Your task to perform on an android device: open chrome privacy settings Image 0: 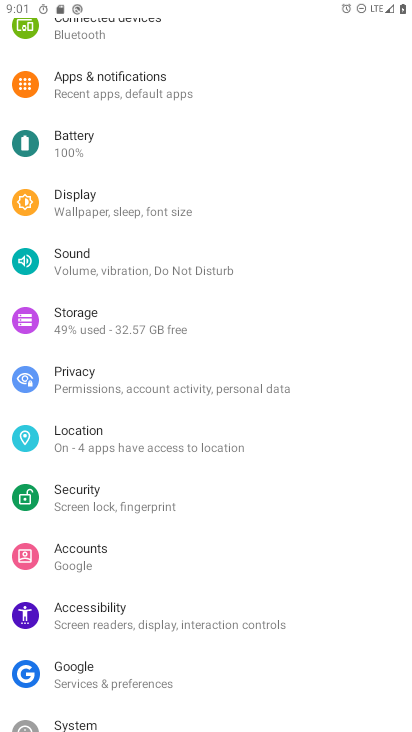
Step 0: press home button
Your task to perform on an android device: open chrome privacy settings Image 1: 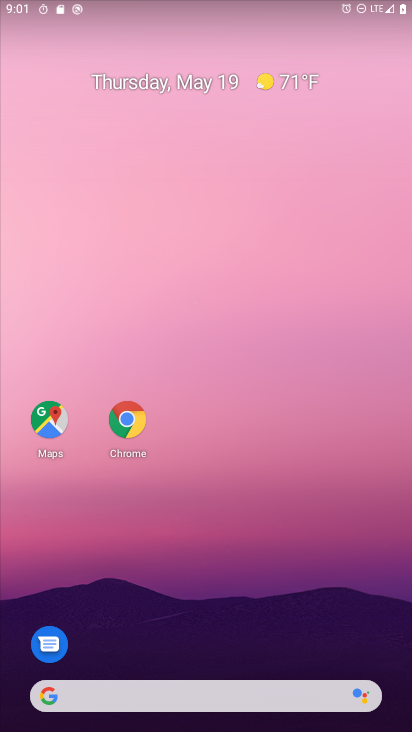
Step 1: click (116, 418)
Your task to perform on an android device: open chrome privacy settings Image 2: 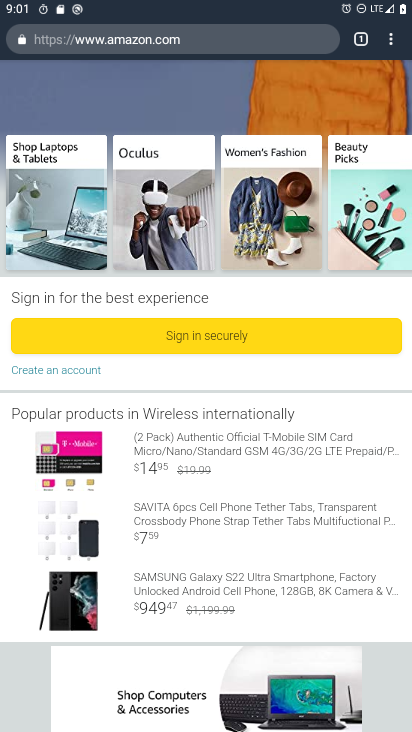
Step 2: click (397, 40)
Your task to perform on an android device: open chrome privacy settings Image 3: 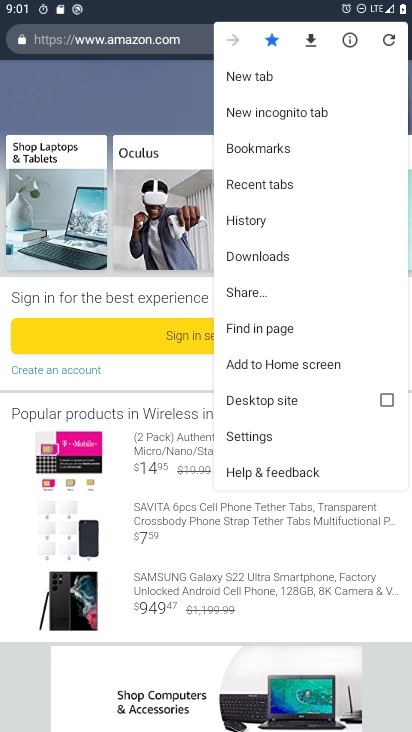
Step 3: click (268, 432)
Your task to perform on an android device: open chrome privacy settings Image 4: 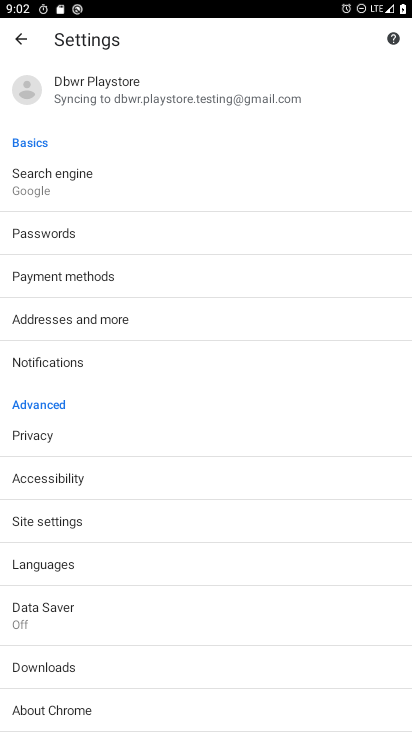
Step 4: click (51, 443)
Your task to perform on an android device: open chrome privacy settings Image 5: 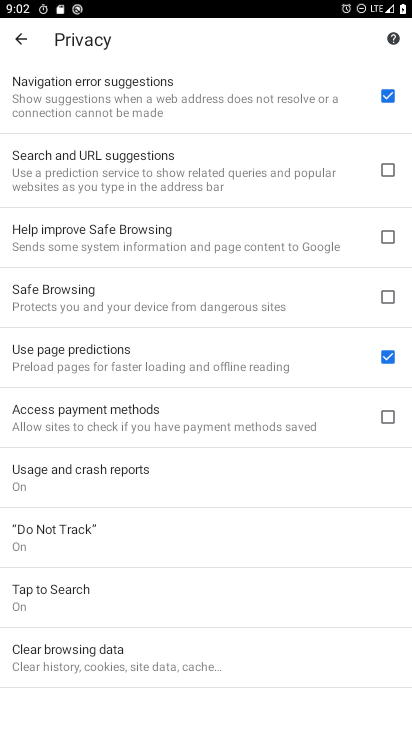
Step 5: task complete